Your task to perform on an android device: empty trash in google photos Image 0: 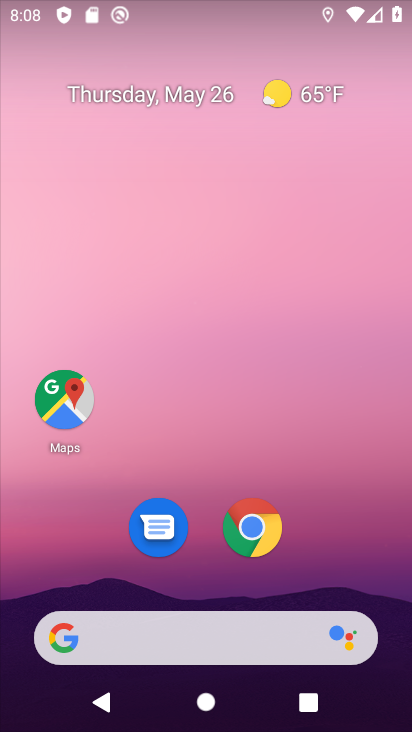
Step 0: drag from (315, 564) to (396, 117)
Your task to perform on an android device: empty trash in google photos Image 1: 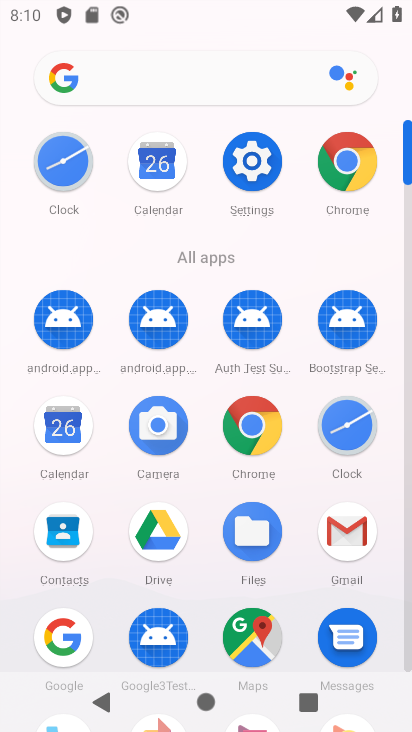
Step 1: drag from (397, 483) to (408, 209)
Your task to perform on an android device: empty trash in google photos Image 2: 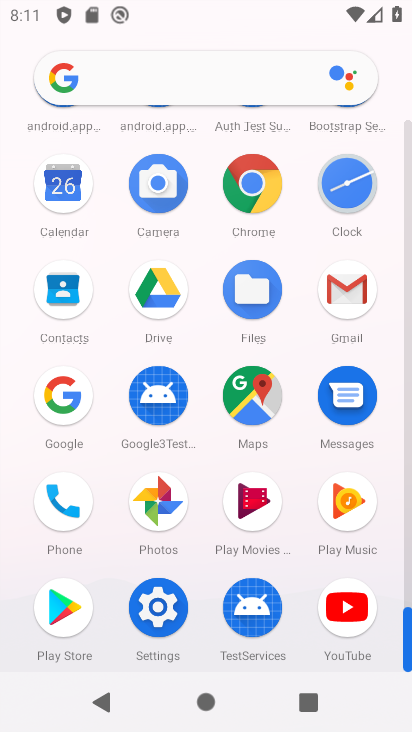
Step 2: click (154, 503)
Your task to perform on an android device: empty trash in google photos Image 3: 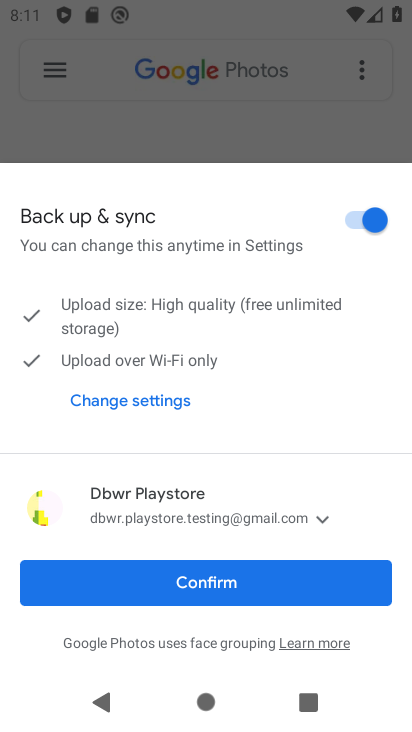
Step 3: click (194, 578)
Your task to perform on an android device: empty trash in google photos Image 4: 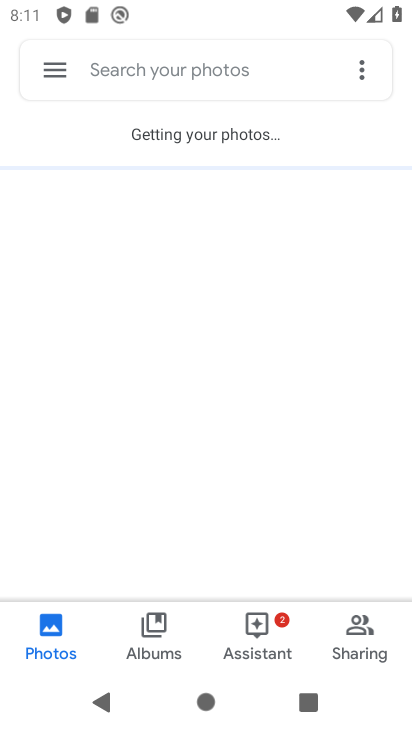
Step 4: click (45, 79)
Your task to perform on an android device: empty trash in google photos Image 5: 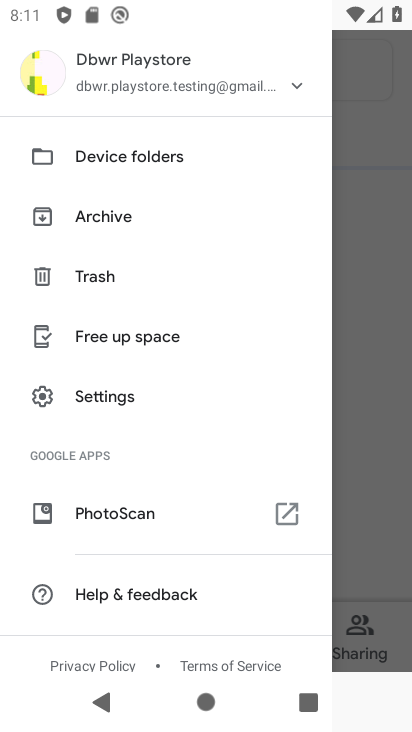
Step 5: click (115, 281)
Your task to perform on an android device: empty trash in google photos Image 6: 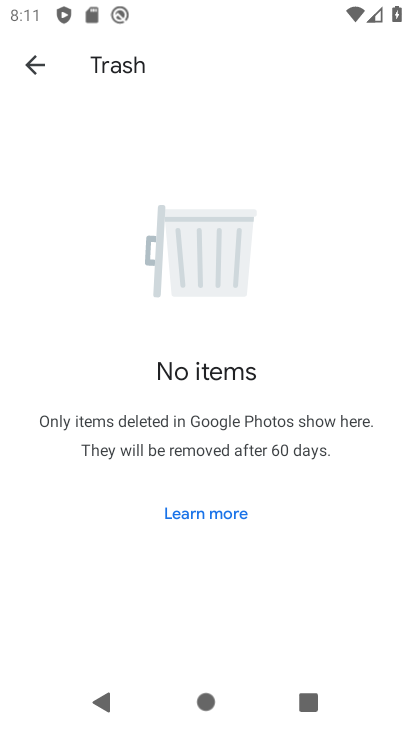
Step 6: task complete